Your task to perform on an android device: Go to Wikipedia Image 0: 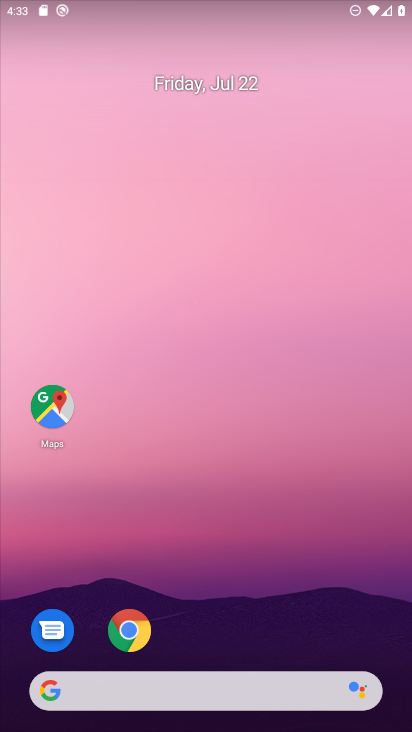
Step 0: click (136, 634)
Your task to perform on an android device: Go to Wikipedia Image 1: 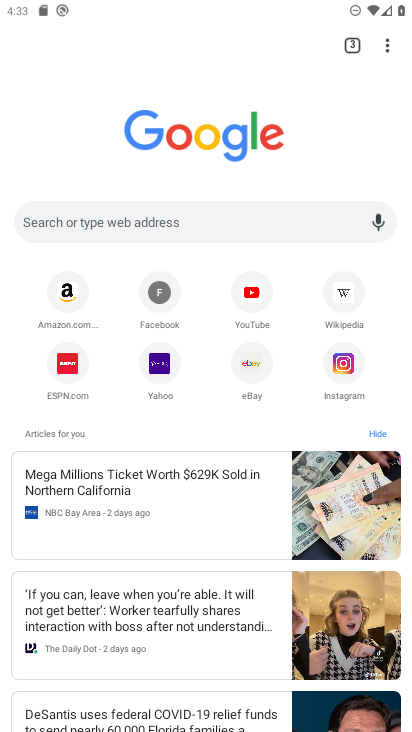
Step 1: click (347, 297)
Your task to perform on an android device: Go to Wikipedia Image 2: 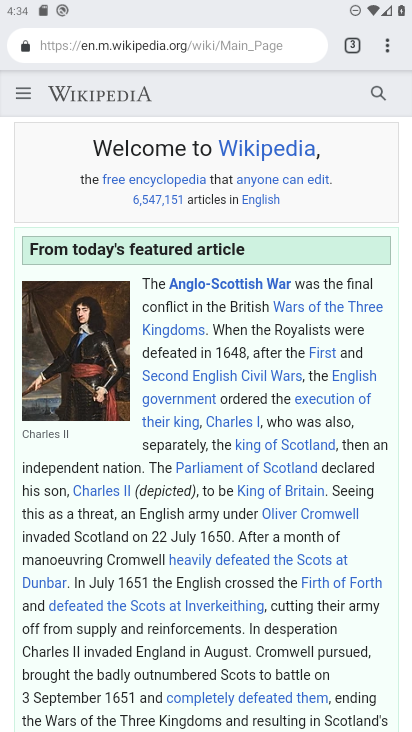
Step 2: task complete